Your task to perform on an android device: Open Youtube and go to the subscriptions tab Image 0: 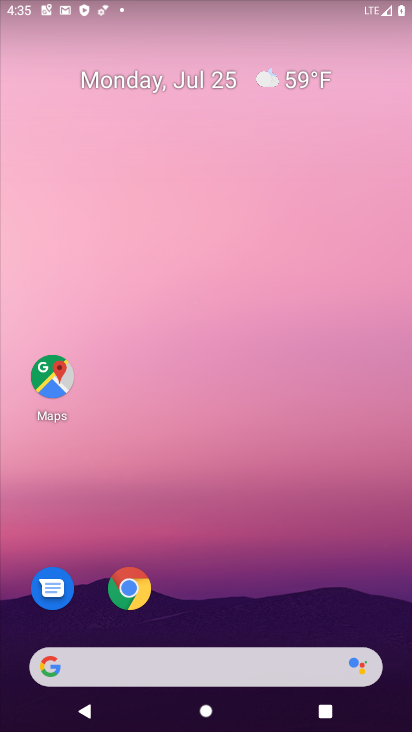
Step 0: drag from (332, 478) to (341, 67)
Your task to perform on an android device: Open Youtube and go to the subscriptions tab Image 1: 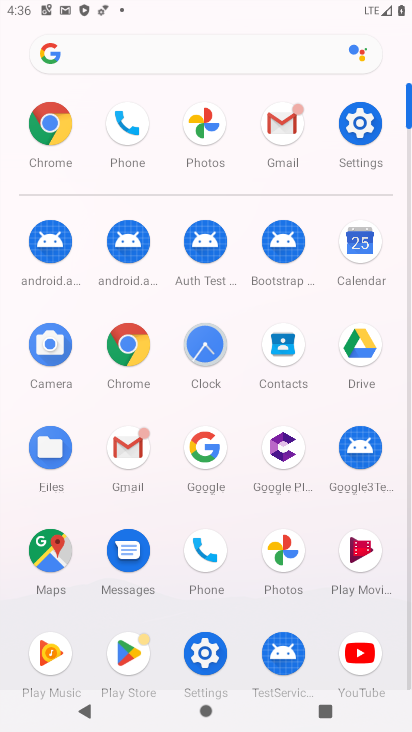
Step 1: click (354, 647)
Your task to perform on an android device: Open Youtube and go to the subscriptions tab Image 2: 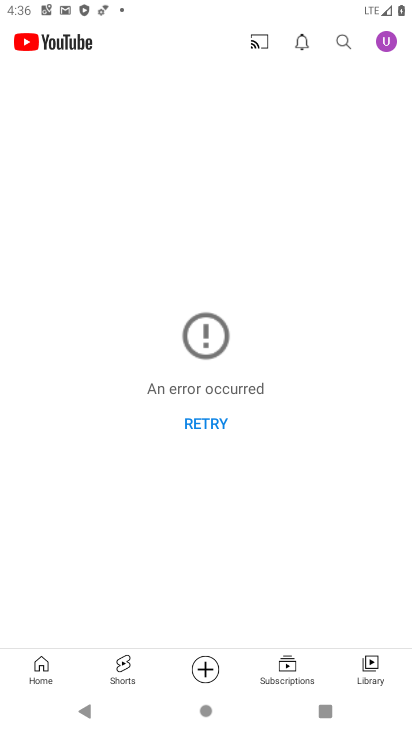
Step 2: click (275, 677)
Your task to perform on an android device: Open Youtube and go to the subscriptions tab Image 3: 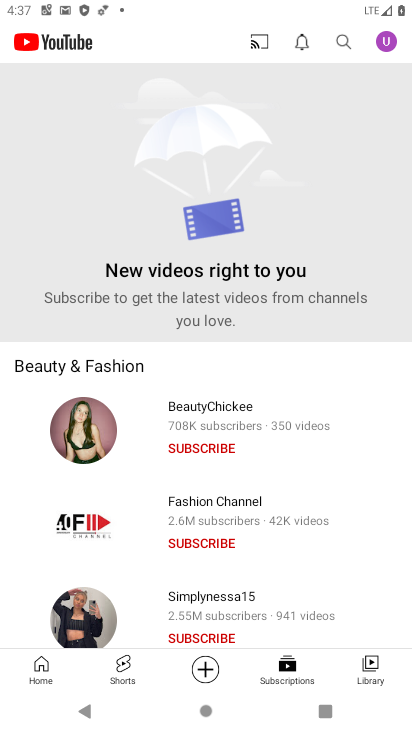
Step 3: task complete